Your task to perform on an android device: see sites visited before in the chrome app Image 0: 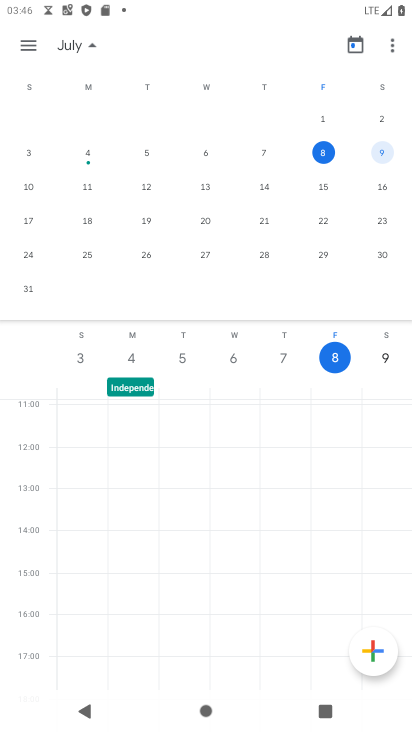
Step 0: press home button
Your task to perform on an android device: see sites visited before in the chrome app Image 1: 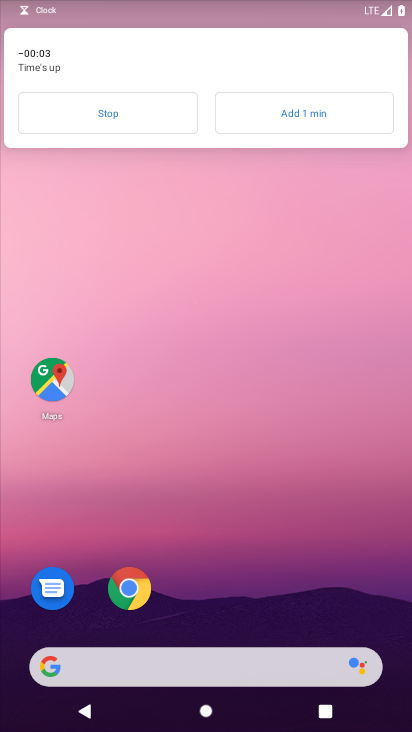
Step 1: click (94, 102)
Your task to perform on an android device: see sites visited before in the chrome app Image 2: 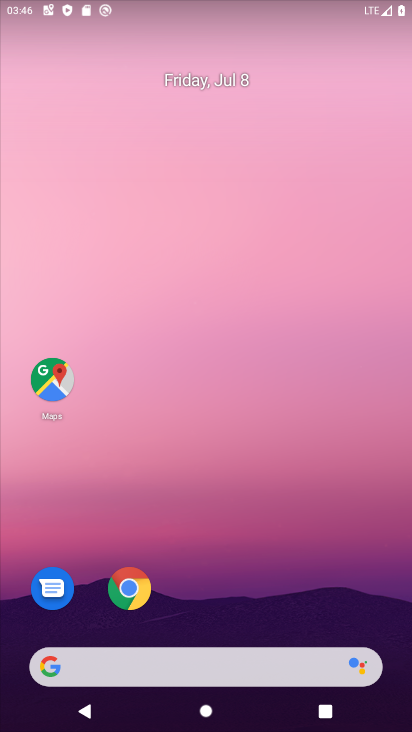
Step 2: click (195, 626)
Your task to perform on an android device: see sites visited before in the chrome app Image 3: 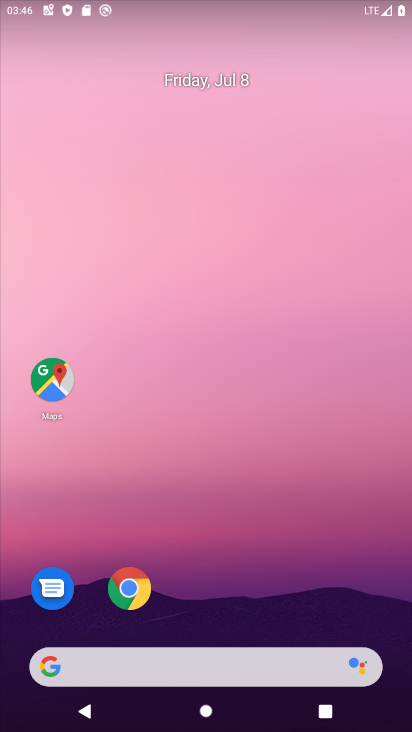
Step 3: click (123, 584)
Your task to perform on an android device: see sites visited before in the chrome app Image 4: 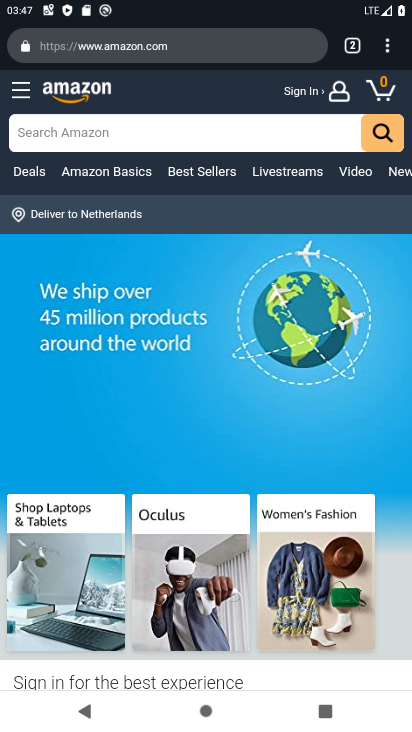
Step 4: click (390, 54)
Your task to perform on an android device: see sites visited before in the chrome app Image 5: 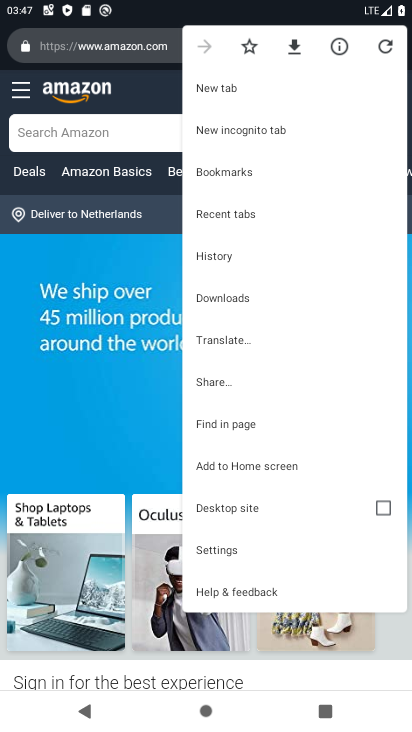
Step 5: click (214, 256)
Your task to perform on an android device: see sites visited before in the chrome app Image 6: 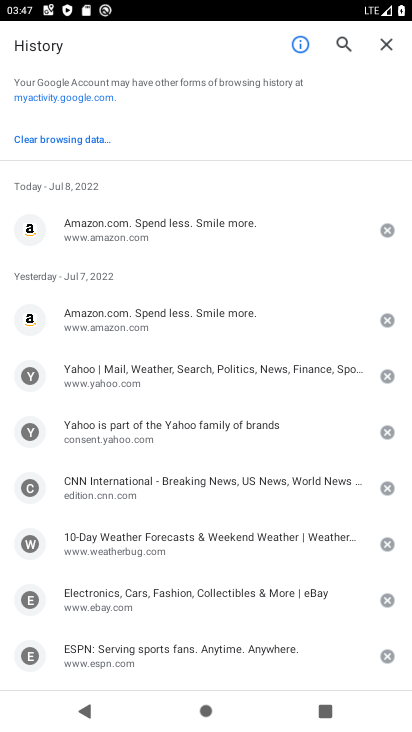
Step 6: task complete